Your task to perform on an android device: Search for vegetarian restaurants on Maps Image 0: 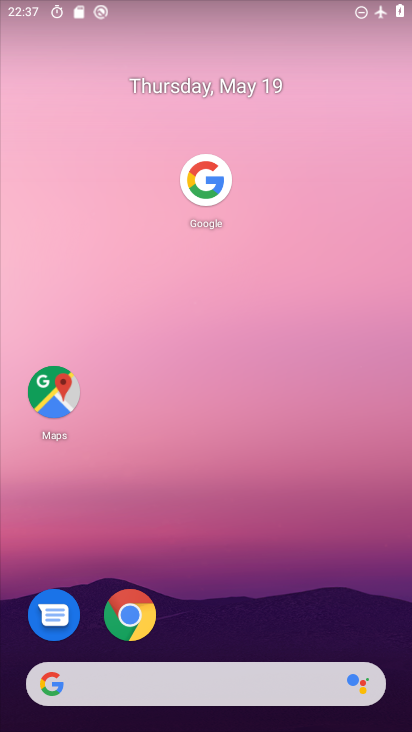
Step 0: drag from (205, 608) to (272, 59)
Your task to perform on an android device: Search for vegetarian restaurants on Maps Image 1: 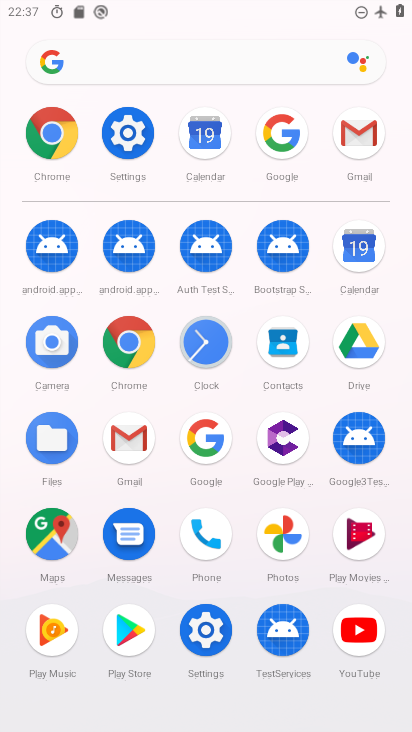
Step 1: click (54, 528)
Your task to perform on an android device: Search for vegetarian restaurants on Maps Image 2: 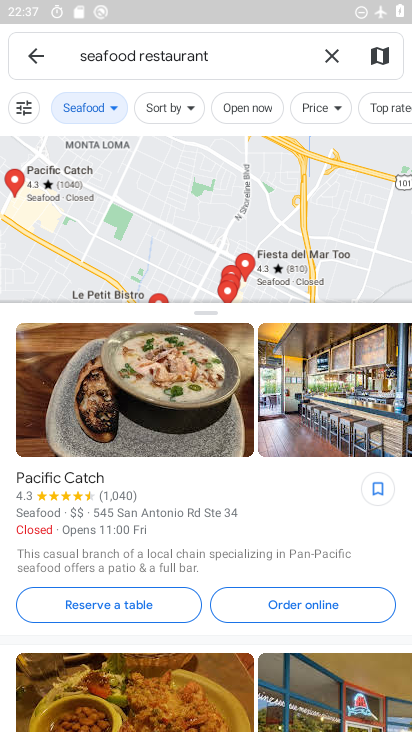
Step 2: click (320, 59)
Your task to perform on an android device: Search for vegetarian restaurants on Maps Image 3: 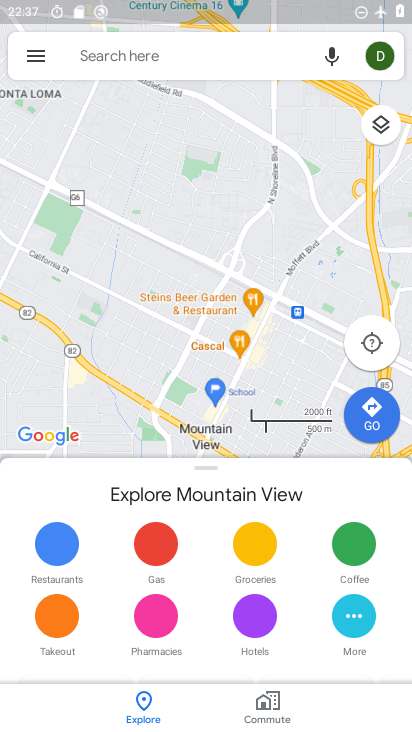
Step 3: click (182, 67)
Your task to perform on an android device: Search for vegetarian restaurants on Maps Image 4: 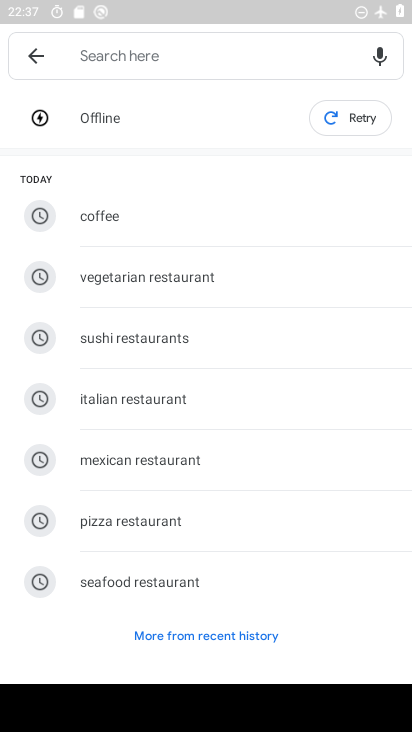
Step 4: click (180, 285)
Your task to perform on an android device: Search for vegetarian restaurants on Maps Image 5: 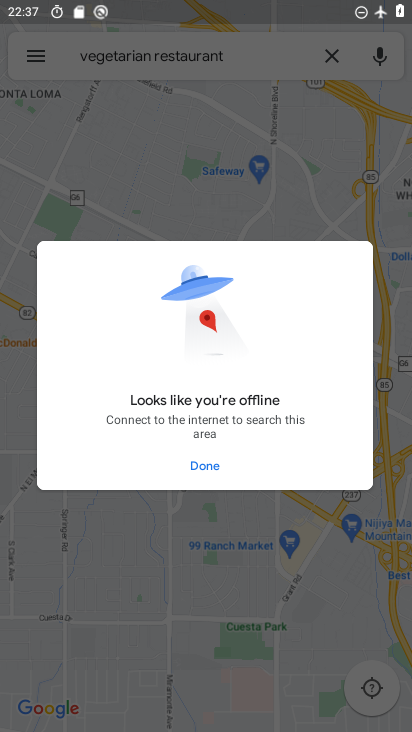
Step 5: task complete